Your task to perform on an android device: Open the stopwatch Image 0: 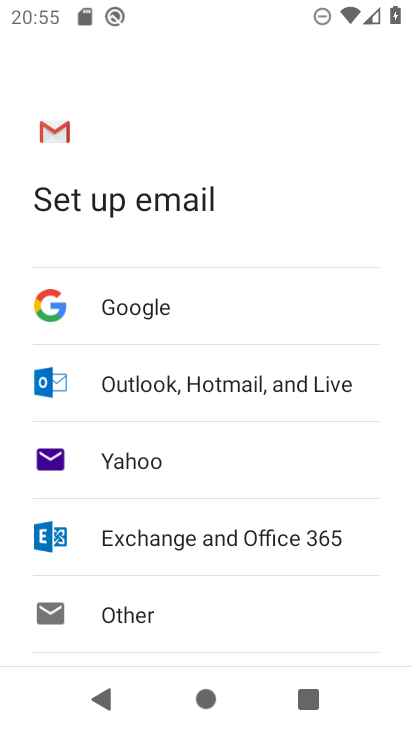
Step 0: press home button
Your task to perform on an android device: Open the stopwatch Image 1: 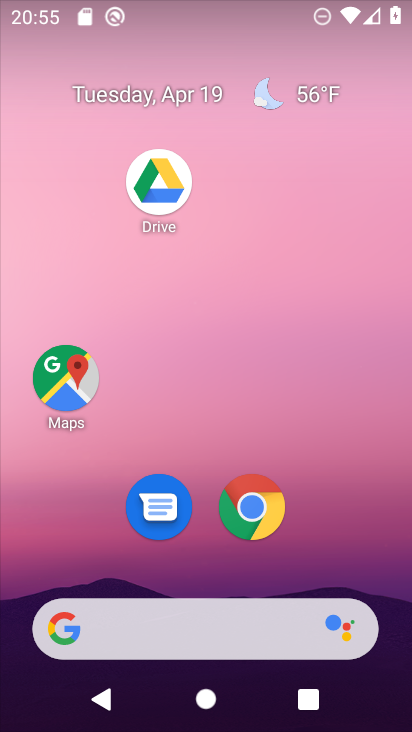
Step 1: drag from (346, 474) to (346, 145)
Your task to perform on an android device: Open the stopwatch Image 2: 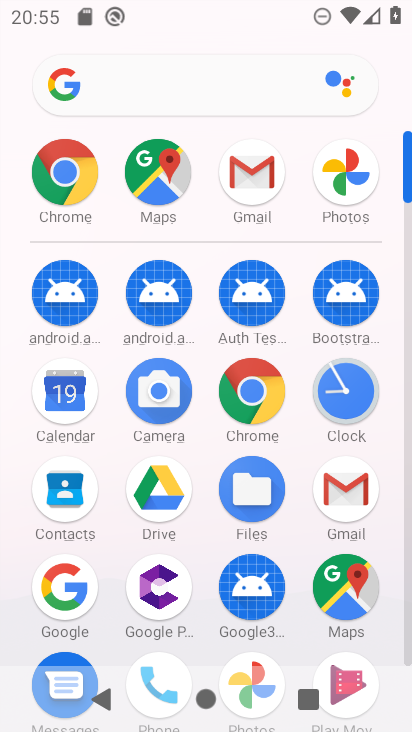
Step 2: click (350, 401)
Your task to perform on an android device: Open the stopwatch Image 3: 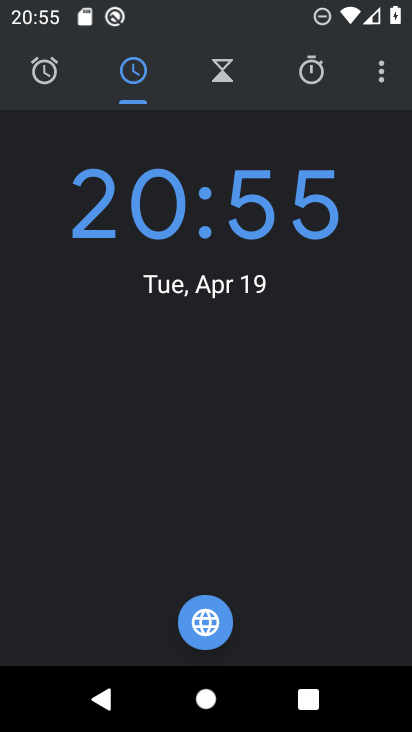
Step 3: click (313, 66)
Your task to perform on an android device: Open the stopwatch Image 4: 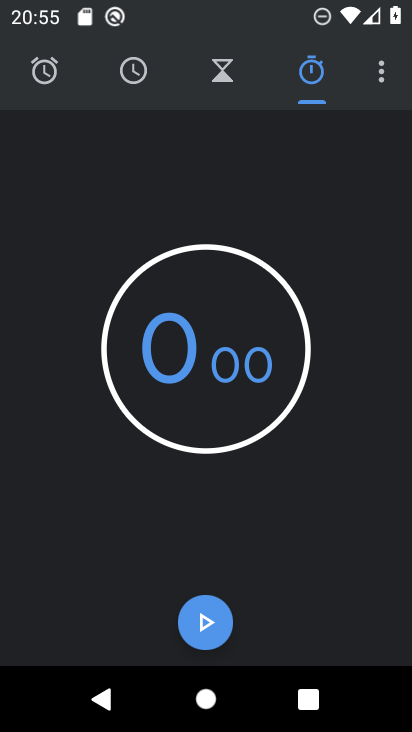
Step 4: task complete